Your task to perform on an android device: Do I have any events this weekend? Image 0: 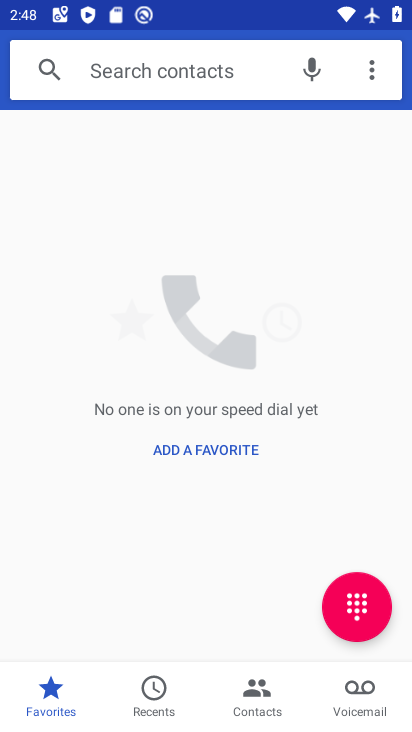
Step 0: press home button
Your task to perform on an android device: Do I have any events this weekend? Image 1: 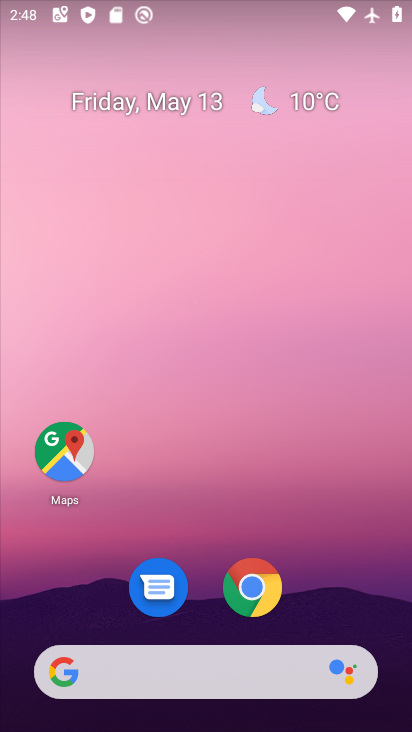
Step 1: drag from (354, 629) to (325, 0)
Your task to perform on an android device: Do I have any events this weekend? Image 2: 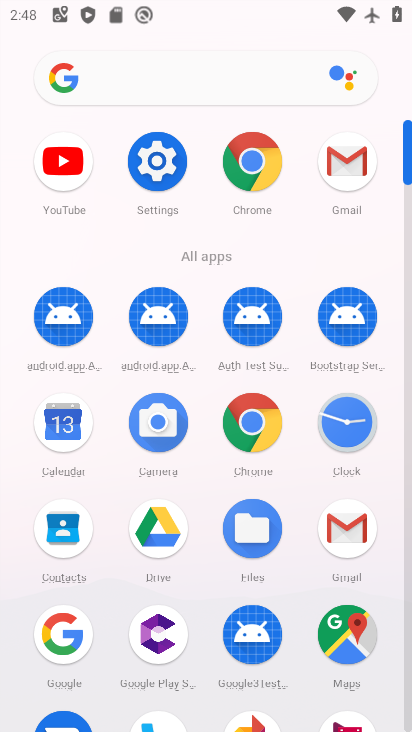
Step 2: click (52, 439)
Your task to perform on an android device: Do I have any events this weekend? Image 3: 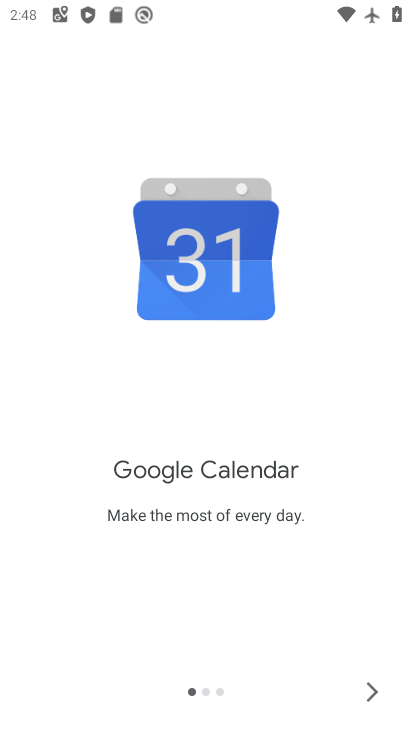
Step 3: click (359, 694)
Your task to perform on an android device: Do I have any events this weekend? Image 4: 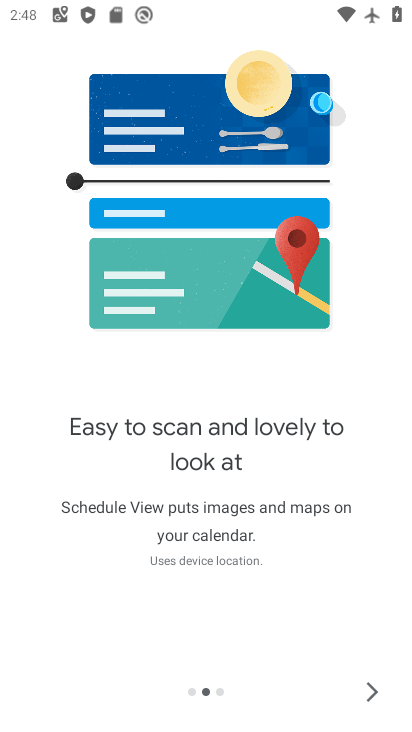
Step 4: click (356, 692)
Your task to perform on an android device: Do I have any events this weekend? Image 5: 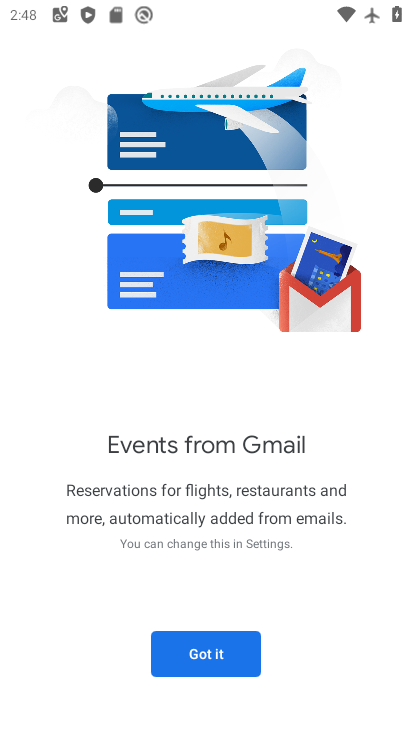
Step 5: click (229, 646)
Your task to perform on an android device: Do I have any events this weekend? Image 6: 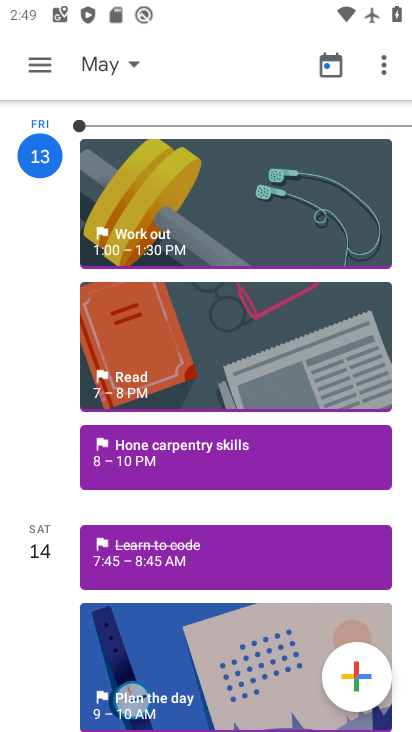
Step 6: click (124, 68)
Your task to perform on an android device: Do I have any events this weekend? Image 7: 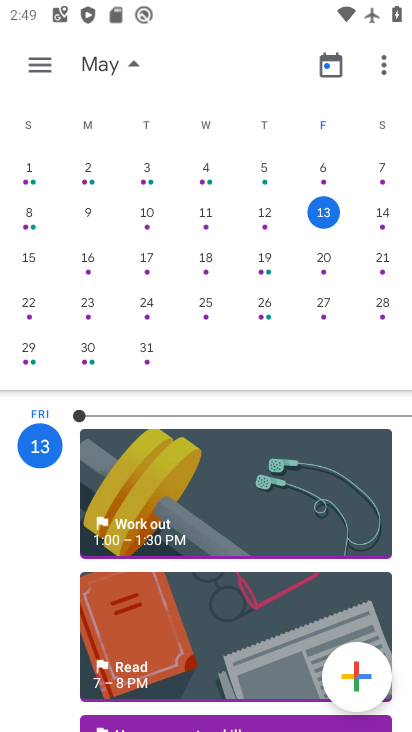
Step 7: click (388, 202)
Your task to perform on an android device: Do I have any events this weekend? Image 8: 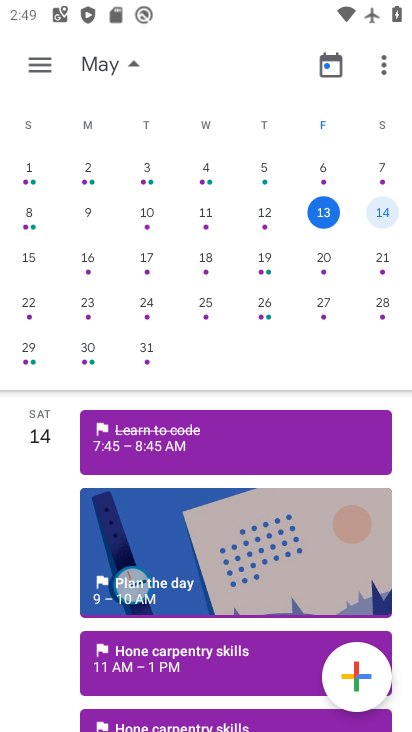
Step 8: click (383, 220)
Your task to perform on an android device: Do I have any events this weekend? Image 9: 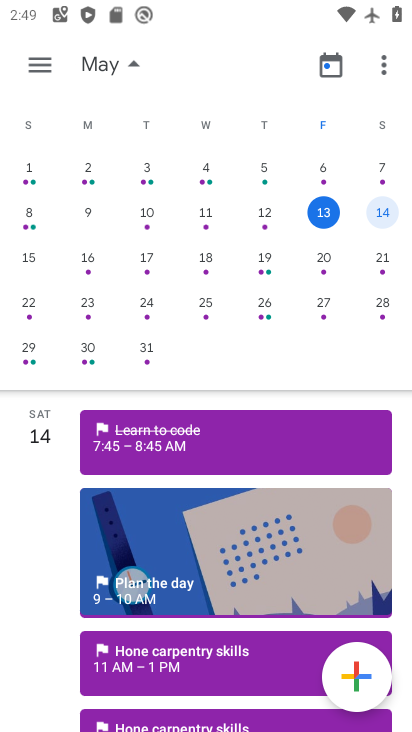
Step 9: task complete